Your task to perform on an android device: Go to Google maps Image 0: 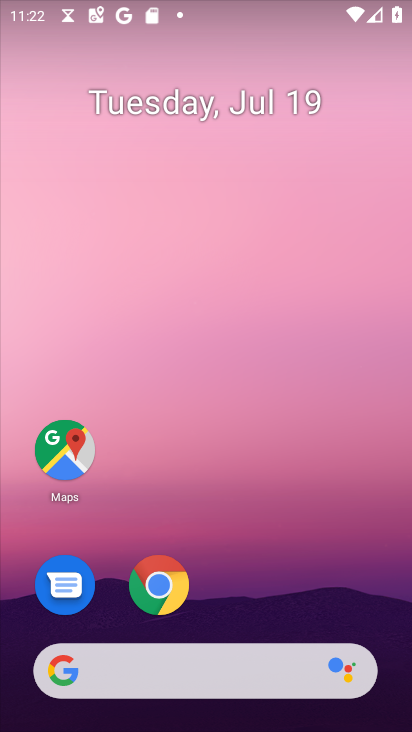
Step 0: press home button
Your task to perform on an android device: Go to Google maps Image 1: 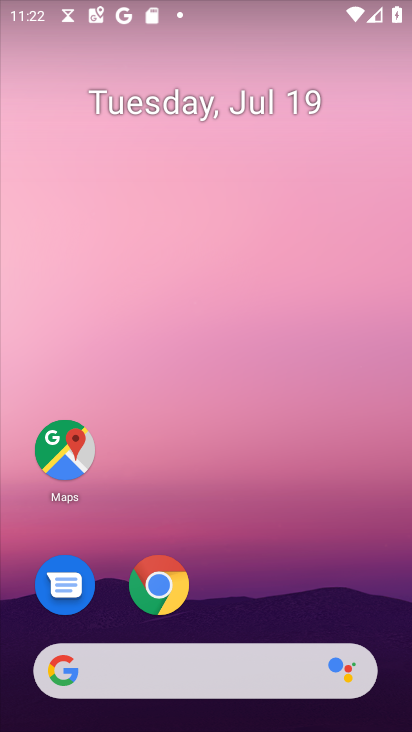
Step 1: click (71, 458)
Your task to perform on an android device: Go to Google maps Image 2: 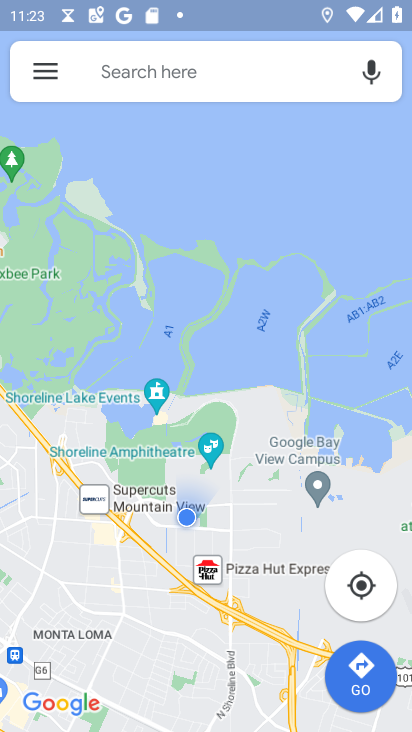
Step 2: task complete